Your task to perform on an android device: What's on my calendar today? Image 0: 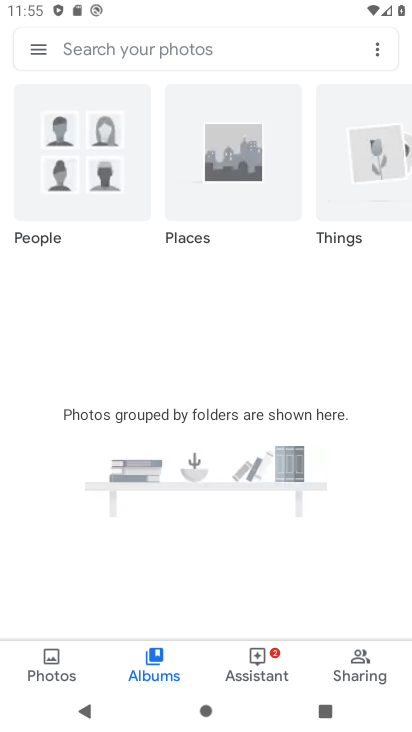
Step 0: click (230, 61)
Your task to perform on an android device: What's on my calendar today? Image 1: 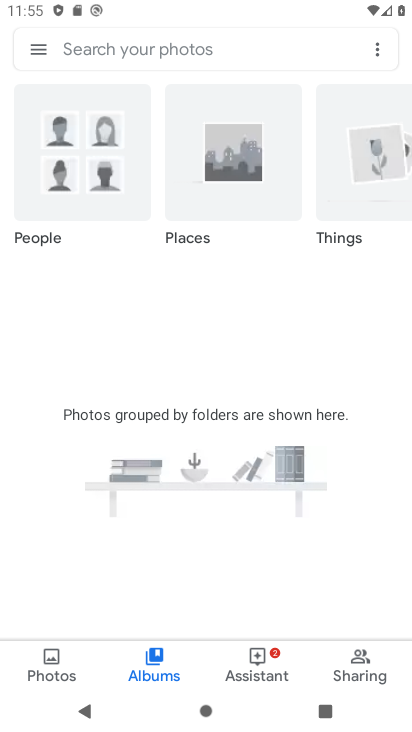
Step 1: press home button
Your task to perform on an android device: What's on my calendar today? Image 2: 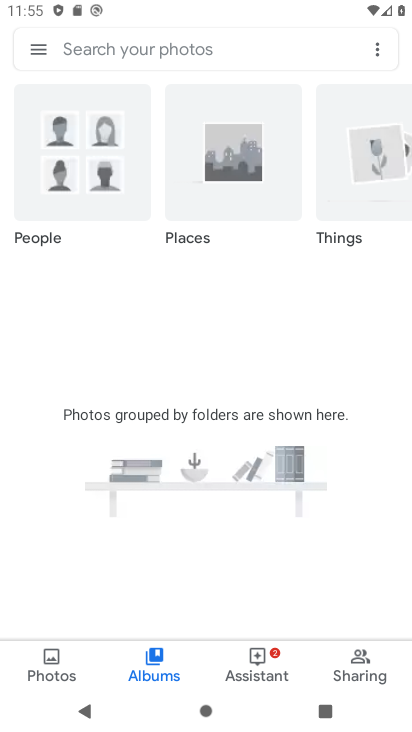
Step 2: drag from (230, 61) to (385, 721)
Your task to perform on an android device: What's on my calendar today? Image 3: 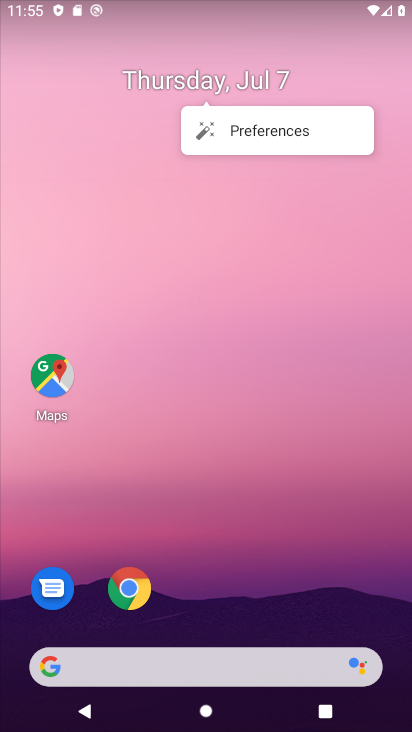
Step 3: drag from (99, 89) to (69, 28)
Your task to perform on an android device: What's on my calendar today? Image 4: 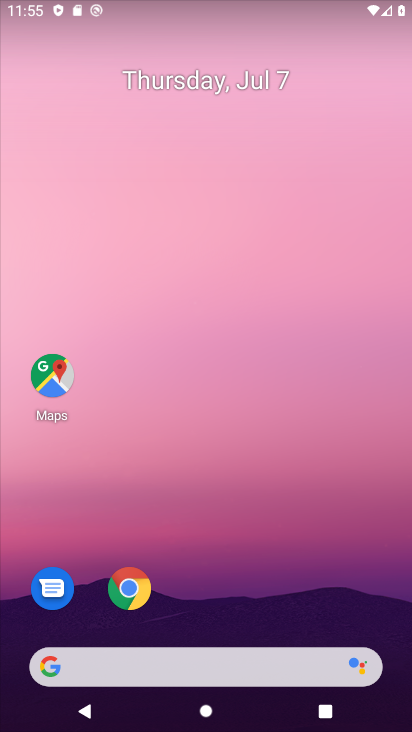
Step 4: drag from (200, 555) to (132, 0)
Your task to perform on an android device: What's on my calendar today? Image 5: 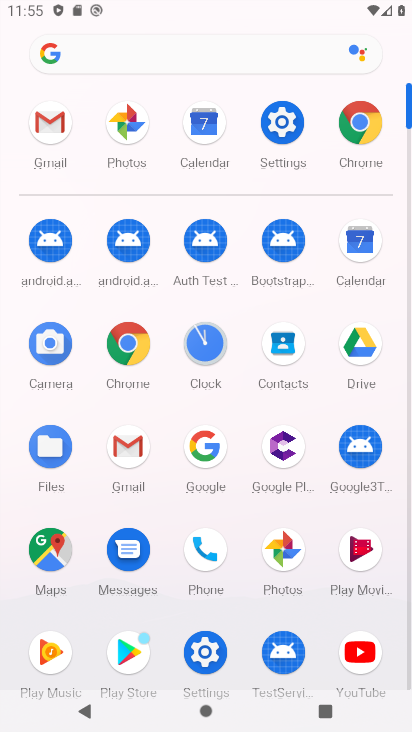
Step 5: click (362, 270)
Your task to perform on an android device: What's on my calendar today? Image 6: 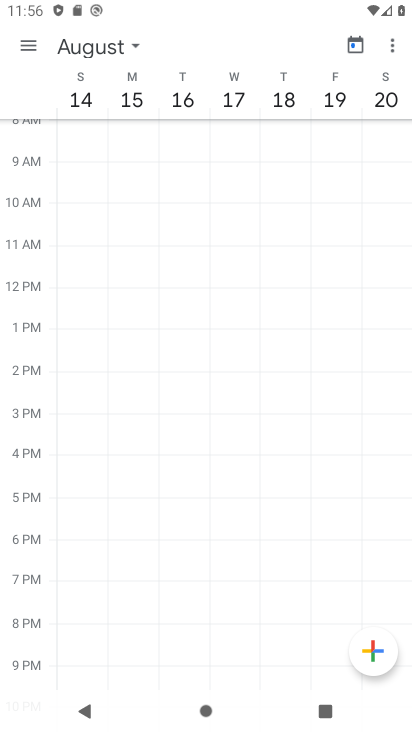
Step 6: click (21, 43)
Your task to perform on an android device: What's on my calendar today? Image 7: 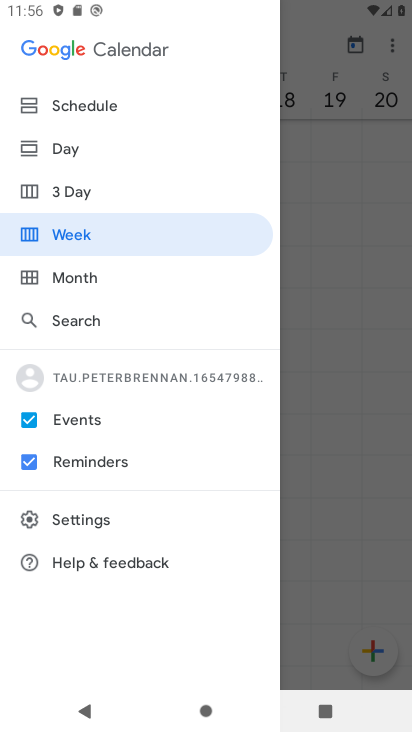
Step 7: click (86, 100)
Your task to perform on an android device: What's on my calendar today? Image 8: 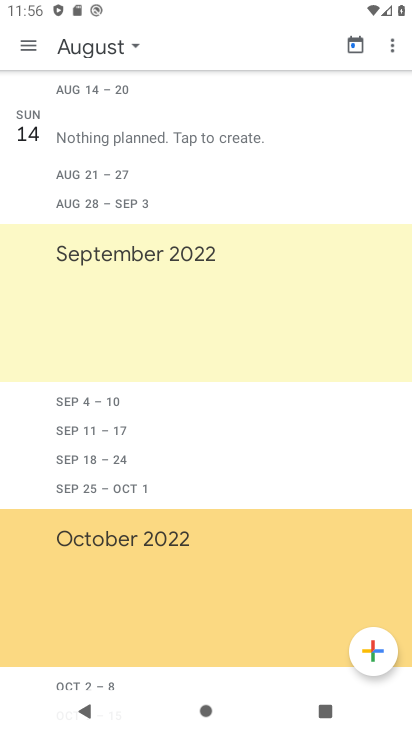
Step 8: click (99, 51)
Your task to perform on an android device: What's on my calendar today? Image 9: 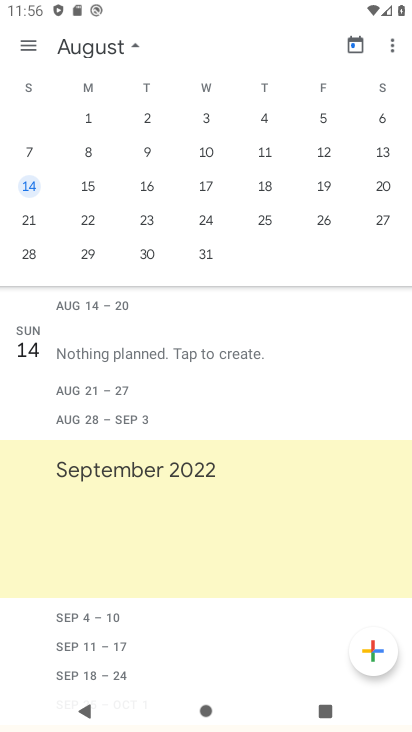
Step 9: drag from (188, 149) to (396, 166)
Your task to perform on an android device: What's on my calendar today? Image 10: 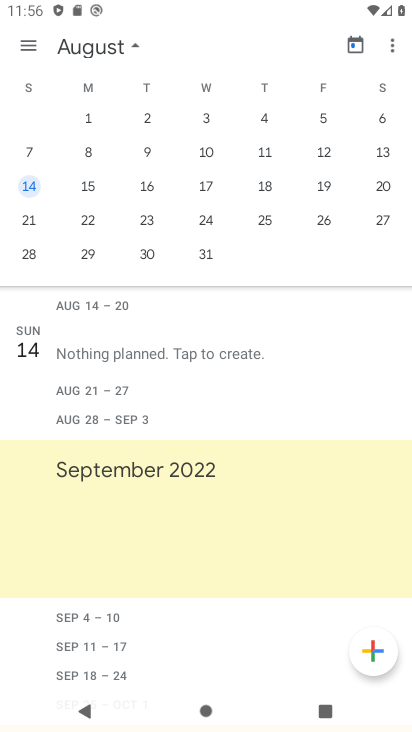
Step 10: drag from (169, 179) to (174, 213)
Your task to perform on an android device: What's on my calendar today? Image 11: 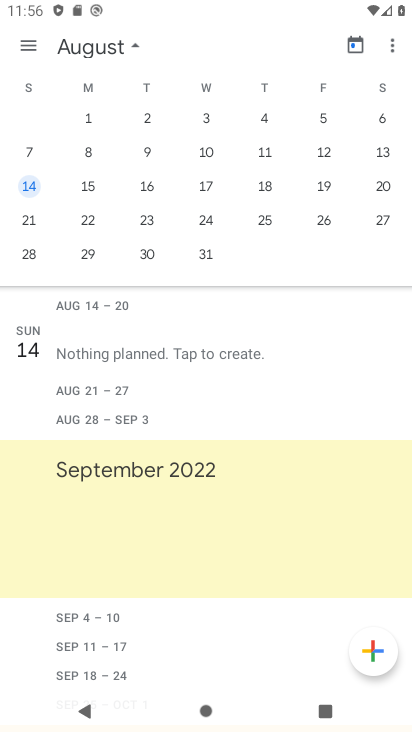
Step 11: drag from (262, 137) to (313, 97)
Your task to perform on an android device: What's on my calendar today? Image 12: 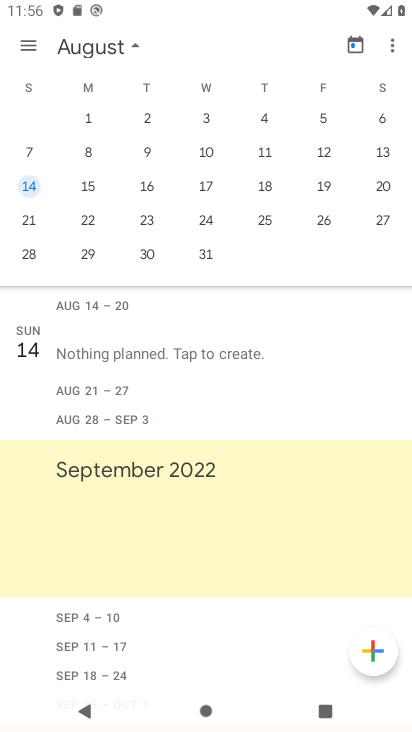
Step 12: drag from (124, 215) to (389, 127)
Your task to perform on an android device: What's on my calendar today? Image 13: 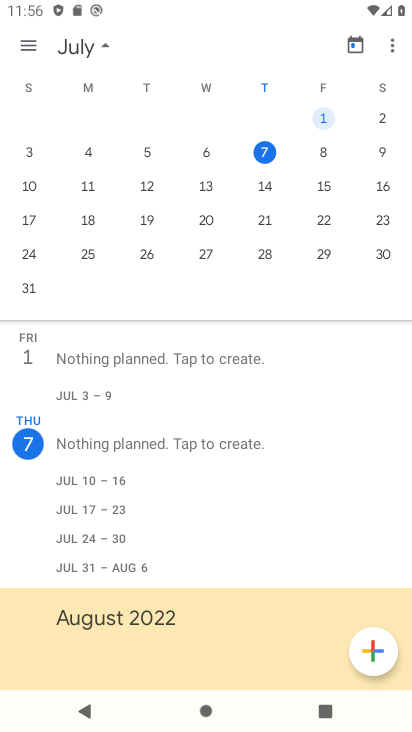
Step 13: click (268, 155)
Your task to perform on an android device: What's on my calendar today? Image 14: 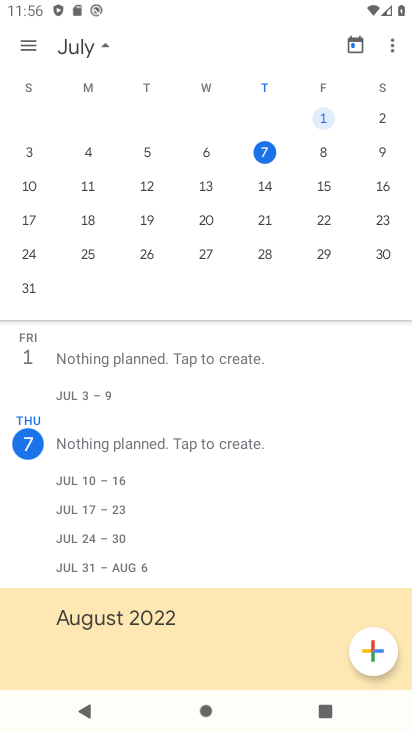
Step 14: click (268, 155)
Your task to perform on an android device: What's on my calendar today? Image 15: 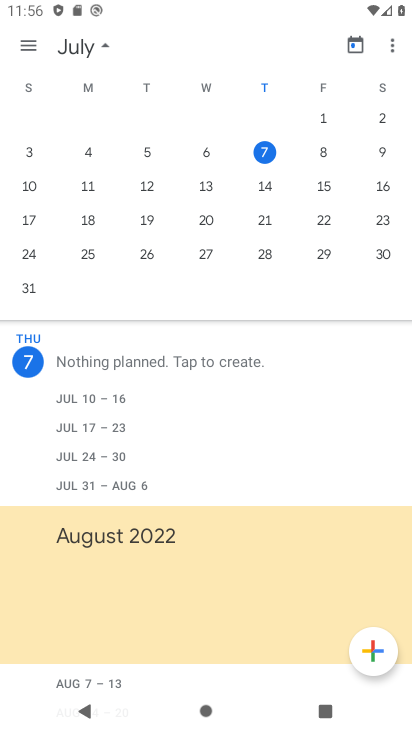
Step 15: task complete